Your task to perform on an android device: delete the emails in spam in the gmail app Image 0: 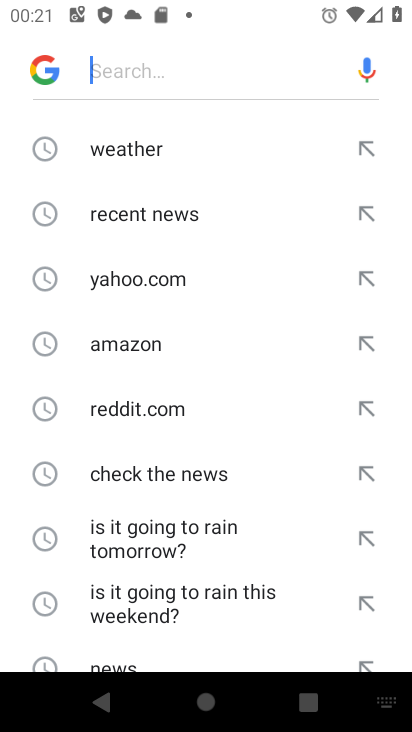
Step 0: press home button
Your task to perform on an android device: delete the emails in spam in the gmail app Image 1: 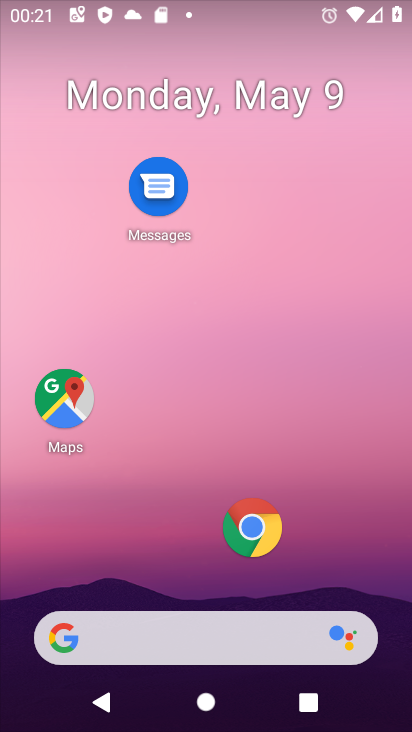
Step 1: drag from (160, 552) to (195, 115)
Your task to perform on an android device: delete the emails in spam in the gmail app Image 2: 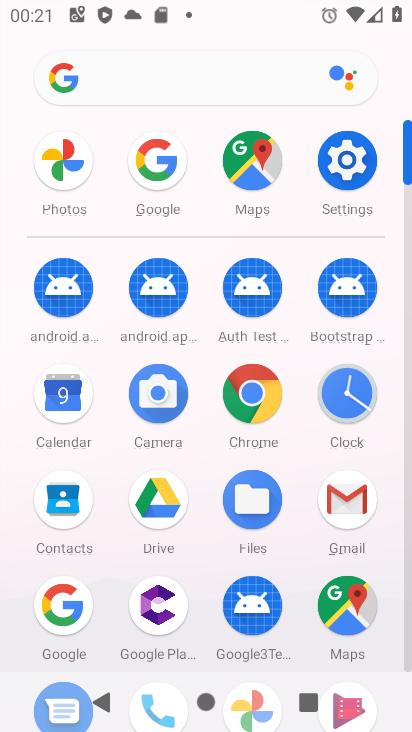
Step 2: drag from (203, 451) to (203, 315)
Your task to perform on an android device: delete the emails in spam in the gmail app Image 3: 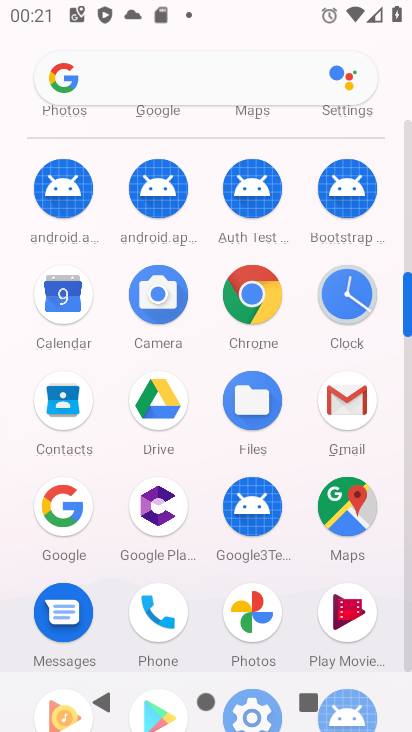
Step 3: click (336, 402)
Your task to perform on an android device: delete the emails in spam in the gmail app Image 4: 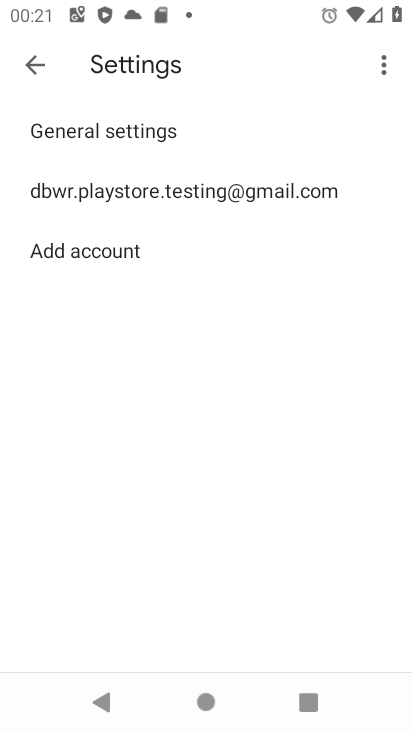
Step 4: press back button
Your task to perform on an android device: delete the emails in spam in the gmail app Image 5: 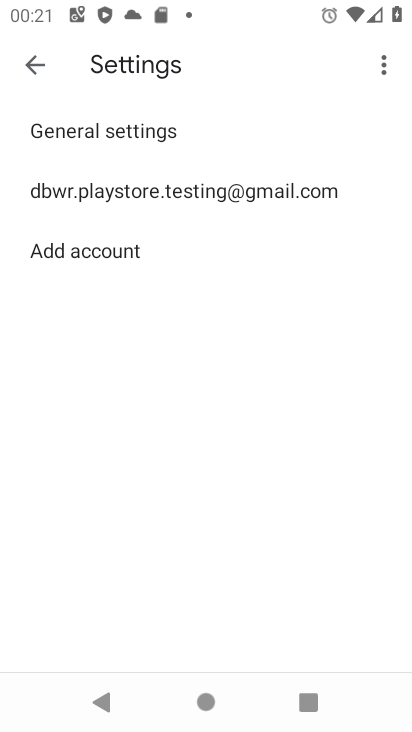
Step 5: press back button
Your task to perform on an android device: delete the emails in spam in the gmail app Image 6: 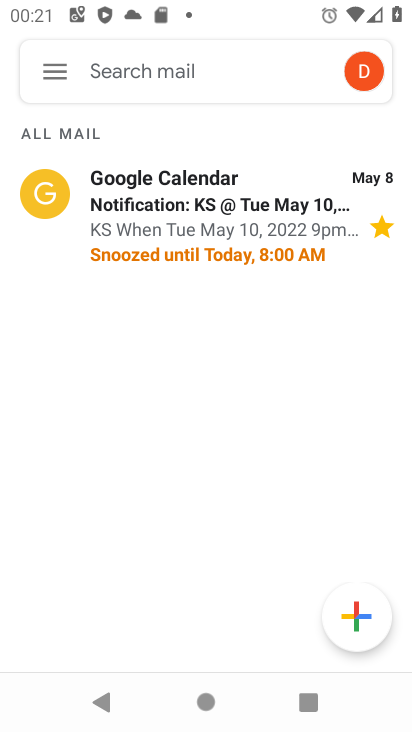
Step 6: click (63, 62)
Your task to perform on an android device: delete the emails in spam in the gmail app Image 7: 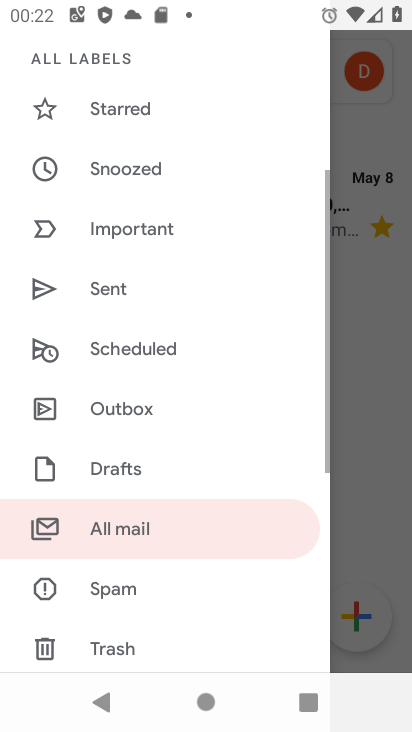
Step 7: drag from (119, 531) to (121, 175)
Your task to perform on an android device: delete the emails in spam in the gmail app Image 8: 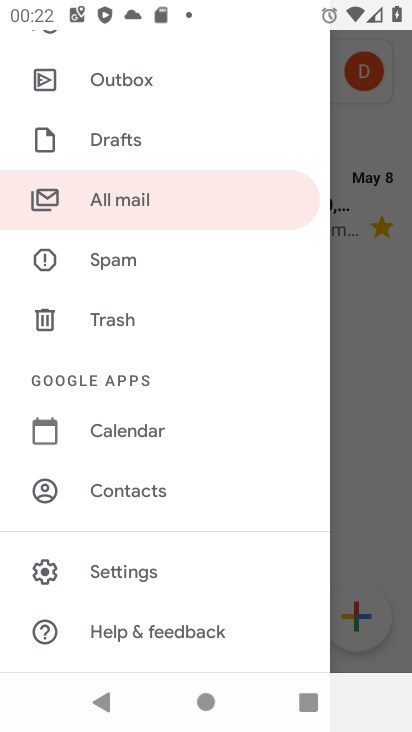
Step 8: drag from (127, 216) to (152, 352)
Your task to perform on an android device: delete the emails in spam in the gmail app Image 9: 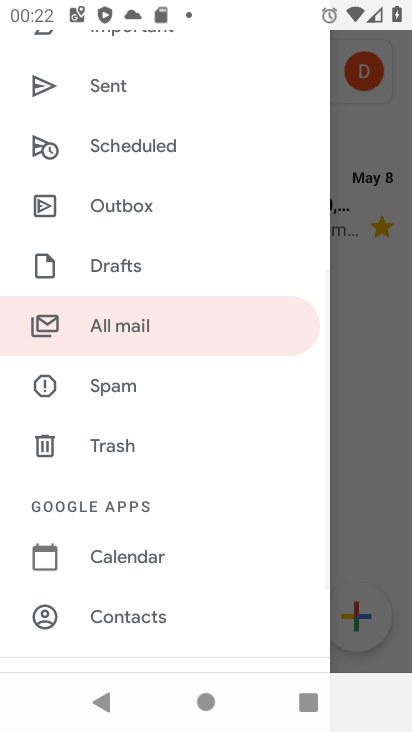
Step 9: click (85, 388)
Your task to perform on an android device: delete the emails in spam in the gmail app Image 10: 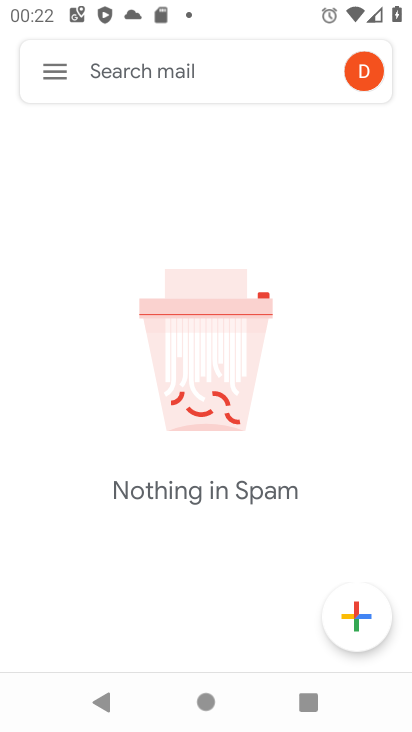
Step 10: task complete